Your task to perform on an android device: visit the assistant section in the google photos Image 0: 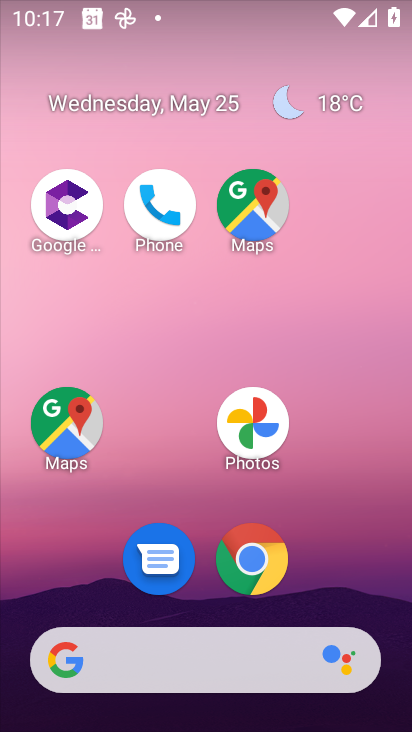
Step 0: click (247, 435)
Your task to perform on an android device: visit the assistant section in the google photos Image 1: 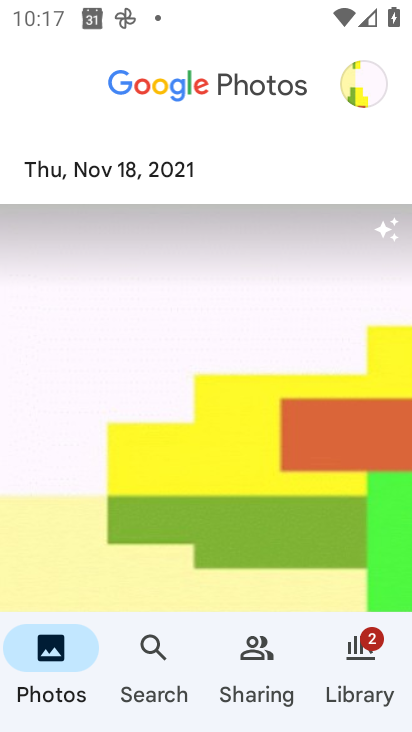
Step 1: click (151, 656)
Your task to perform on an android device: visit the assistant section in the google photos Image 2: 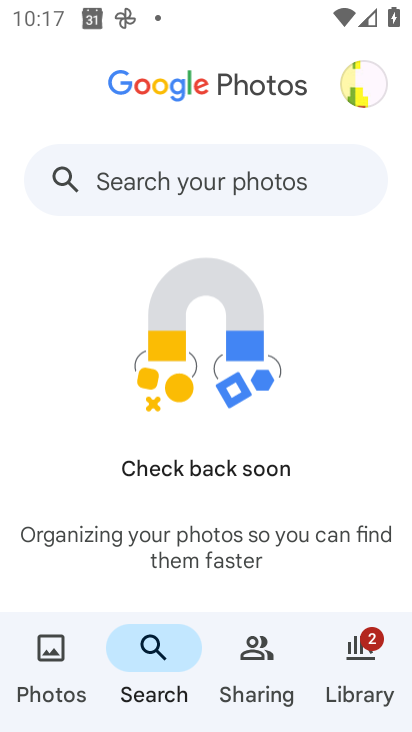
Step 2: click (193, 179)
Your task to perform on an android device: visit the assistant section in the google photos Image 3: 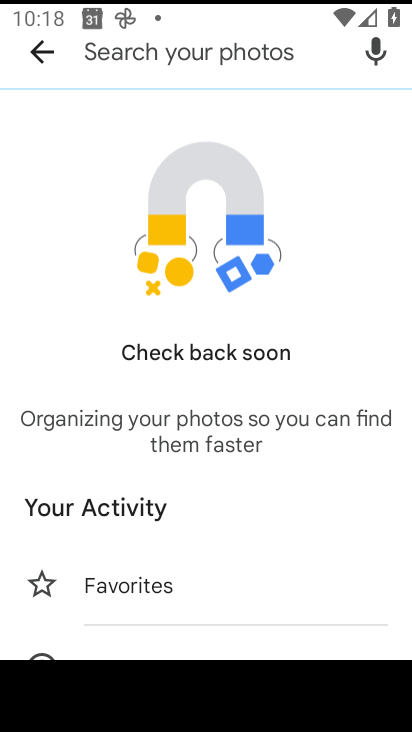
Step 3: type "assistant section"
Your task to perform on an android device: visit the assistant section in the google photos Image 4: 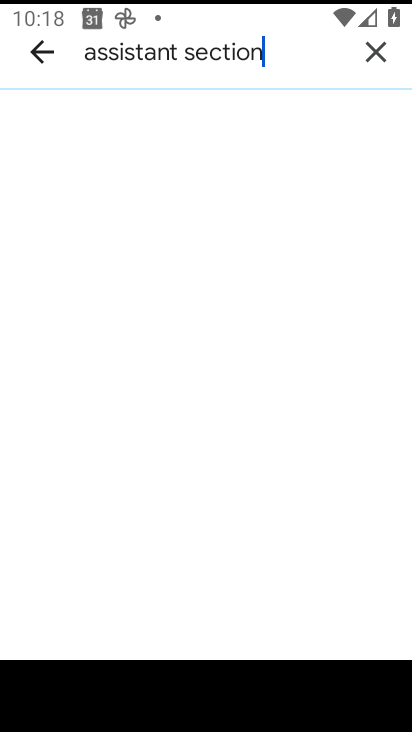
Step 4: task complete